Your task to perform on an android device: Open Google Chrome and click the shortcut for Amazon.com Image 0: 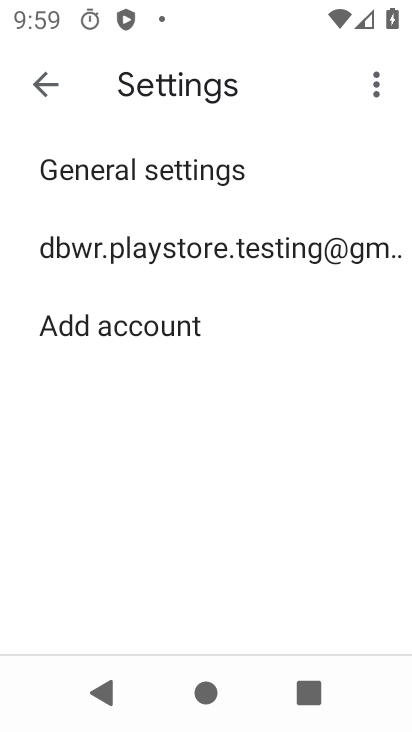
Step 0: press home button
Your task to perform on an android device: Open Google Chrome and click the shortcut for Amazon.com Image 1: 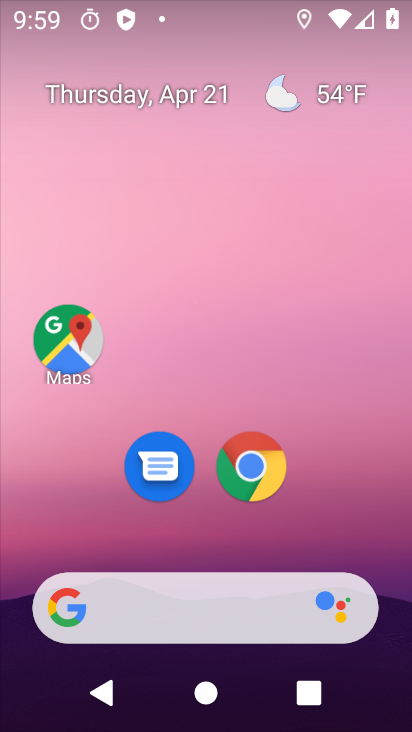
Step 1: drag from (365, 352) to (365, 126)
Your task to perform on an android device: Open Google Chrome and click the shortcut for Amazon.com Image 2: 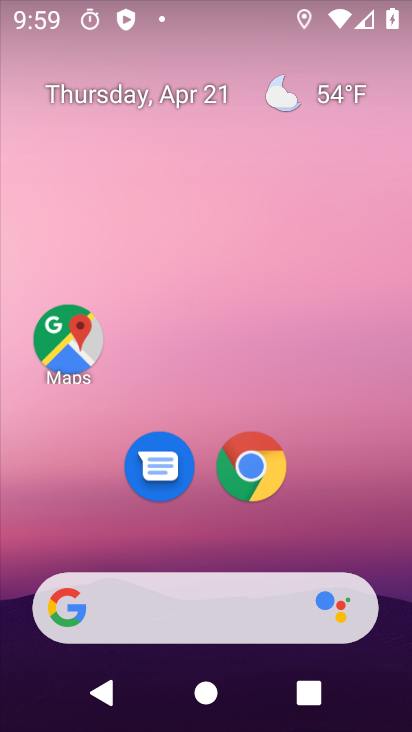
Step 2: drag from (374, 497) to (350, 103)
Your task to perform on an android device: Open Google Chrome and click the shortcut for Amazon.com Image 3: 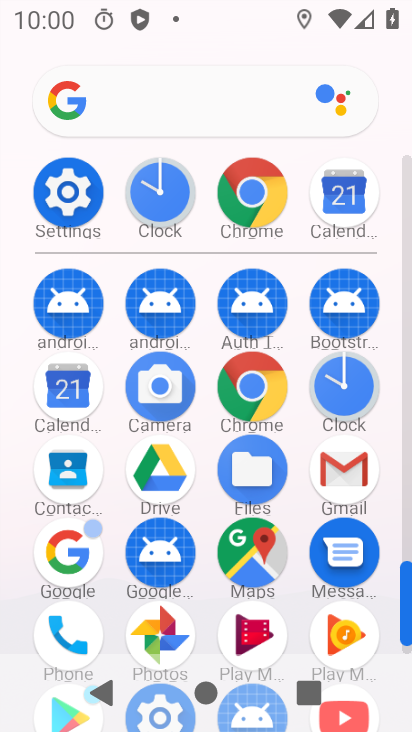
Step 3: drag from (216, 520) to (217, 342)
Your task to perform on an android device: Open Google Chrome and click the shortcut for Amazon.com Image 4: 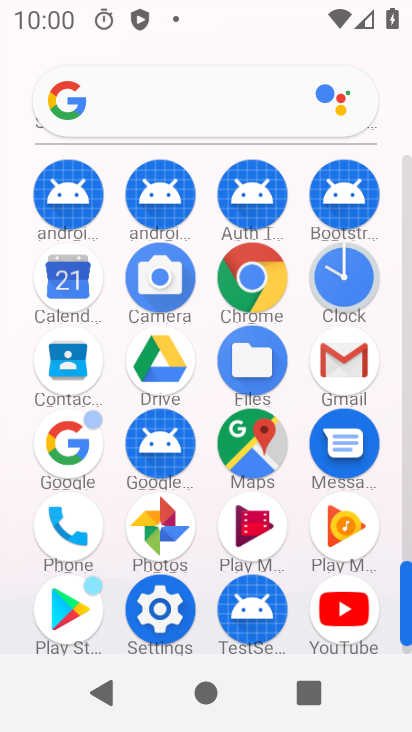
Step 4: click (241, 299)
Your task to perform on an android device: Open Google Chrome and click the shortcut for Amazon.com Image 5: 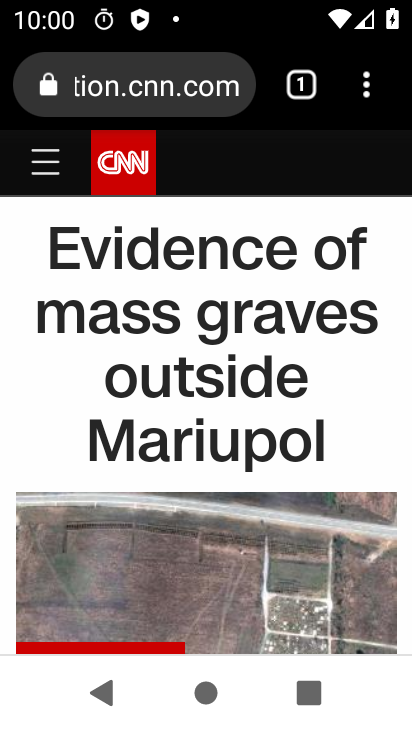
Step 5: click (129, 107)
Your task to perform on an android device: Open Google Chrome and click the shortcut for Amazon.com Image 6: 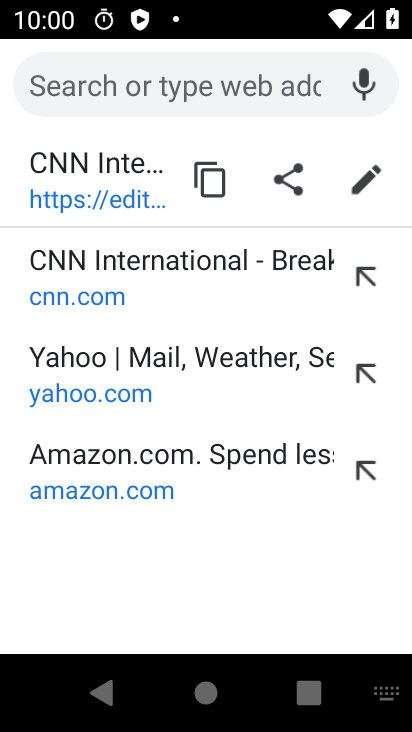
Step 6: type "amazon.com"
Your task to perform on an android device: Open Google Chrome and click the shortcut for Amazon.com Image 7: 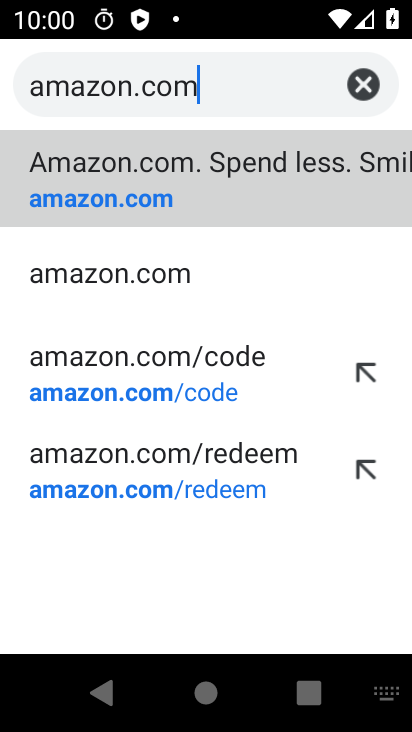
Step 7: click (121, 197)
Your task to perform on an android device: Open Google Chrome and click the shortcut for Amazon.com Image 8: 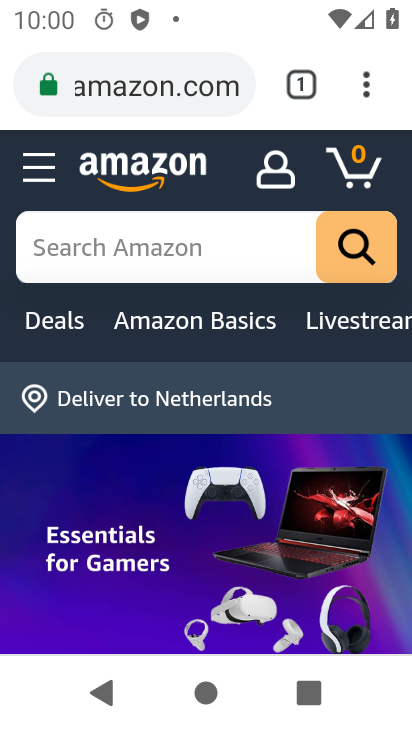
Step 8: task complete